Your task to perform on an android device: Open Reddit.com Image 0: 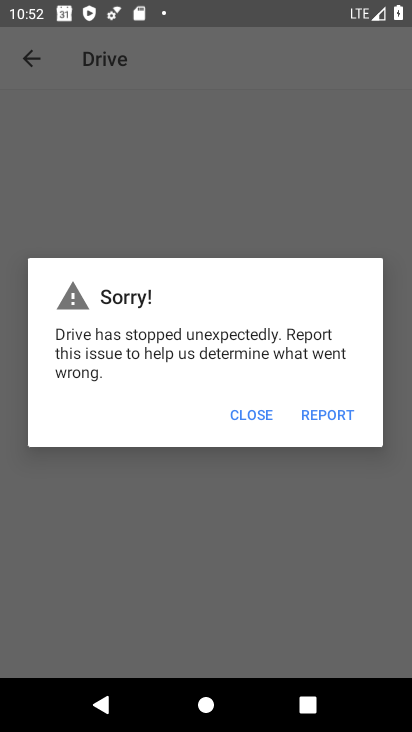
Step 0: press home button
Your task to perform on an android device: Open Reddit.com Image 1: 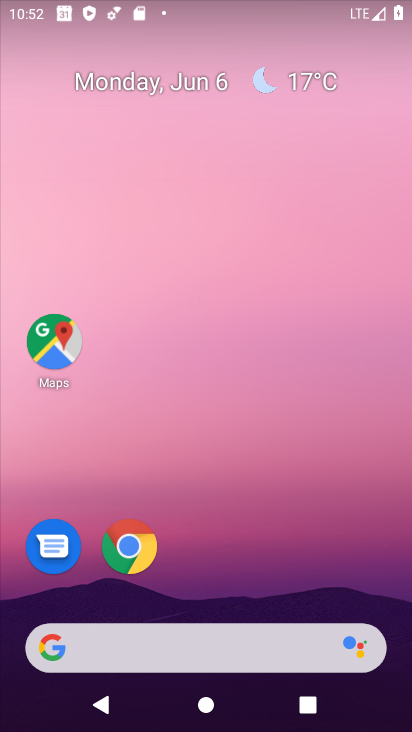
Step 1: click (132, 541)
Your task to perform on an android device: Open Reddit.com Image 2: 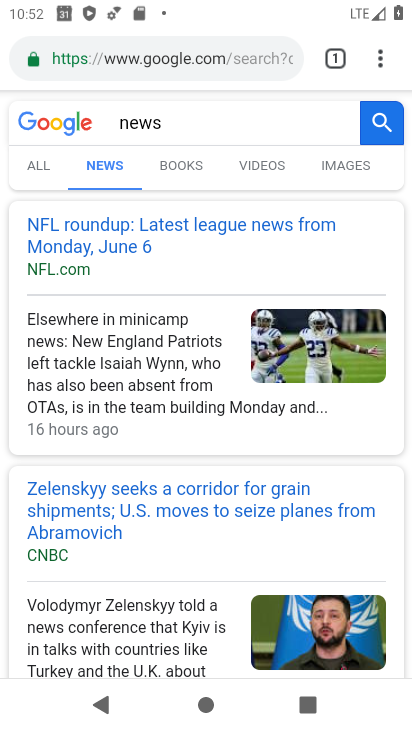
Step 2: click (180, 72)
Your task to perform on an android device: Open Reddit.com Image 3: 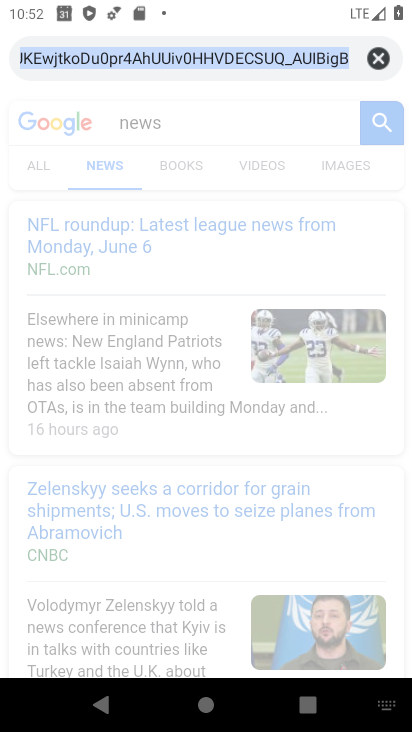
Step 3: type "reddit.comm"
Your task to perform on an android device: Open Reddit.com Image 4: 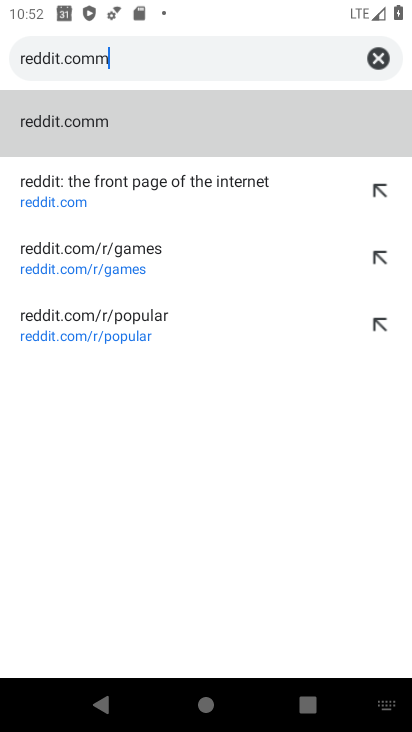
Step 4: click (51, 203)
Your task to perform on an android device: Open Reddit.com Image 5: 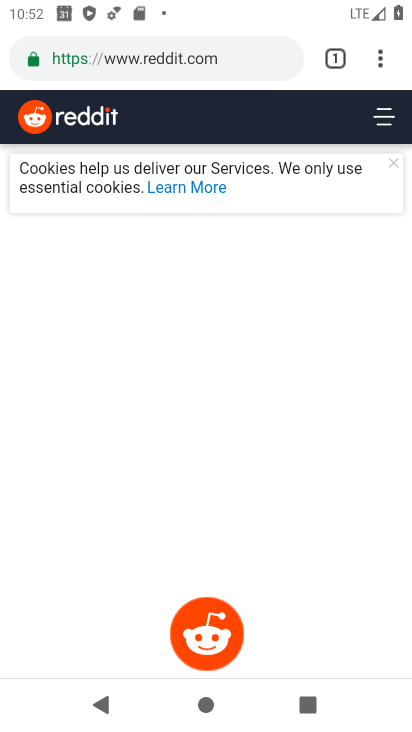
Step 5: task complete